Your task to perform on an android device: Open Yahoo.com Image 0: 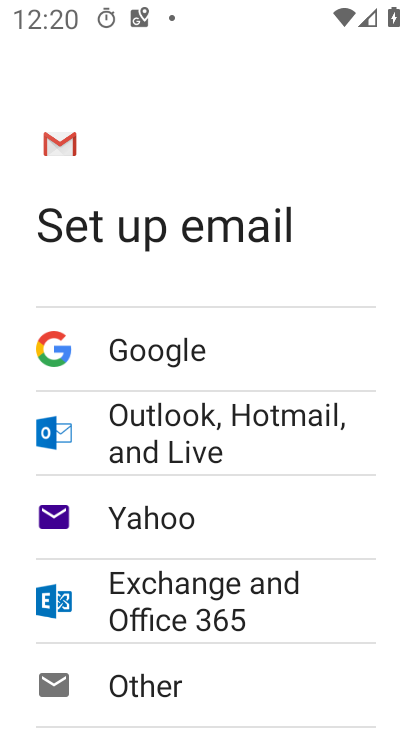
Step 0: press home button
Your task to perform on an android device: Open Yahoo.com Image 1: 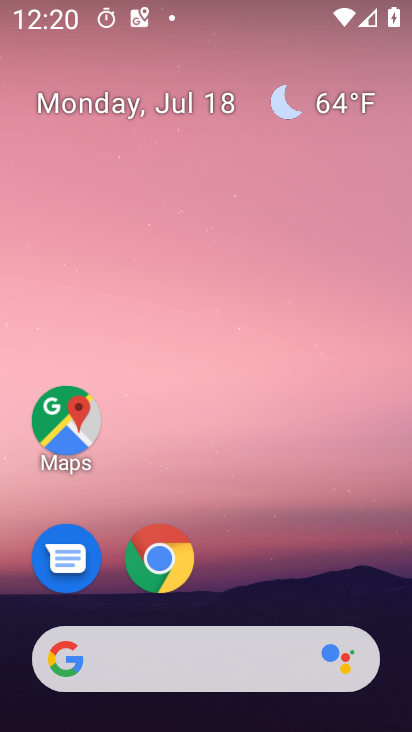
Step 1: drag from (320, 542) to (378, 121)
Your task to perform on an android device: Open Yahoo.com Image 2: 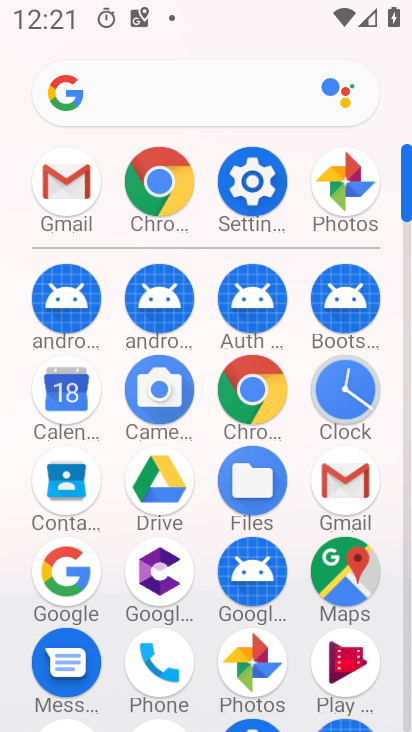
Step 2: click (266, 383)
Your task to perform on an android device: Open Yahoo.com Image 3: 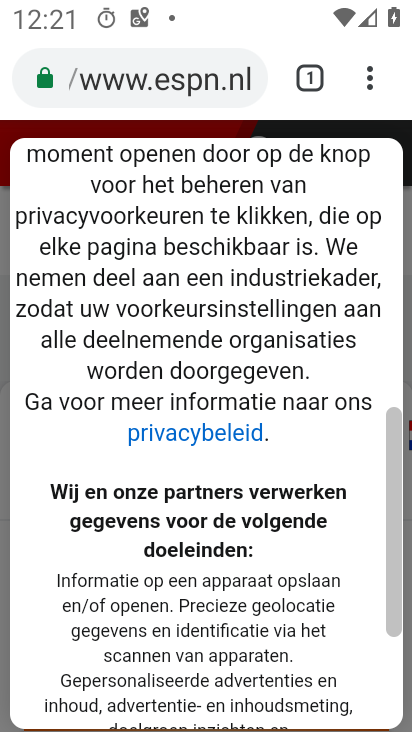
Step 3: click (198, 92)
Your task to perform on an android device: Open Yahoo.com Image 4: 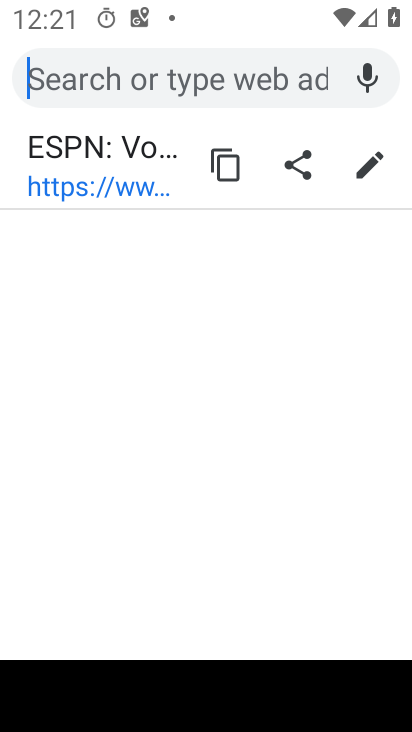
Step 4: type "yahoo.com"
Your task to perform on an android device: Open Yahoo.com Image 5: 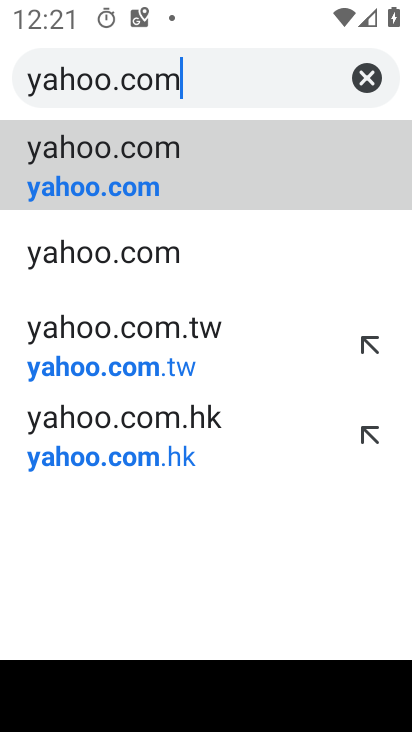
Step 5: click (265, 153)
Your task to perform on an android device: Open Yahoo.com Image 6: 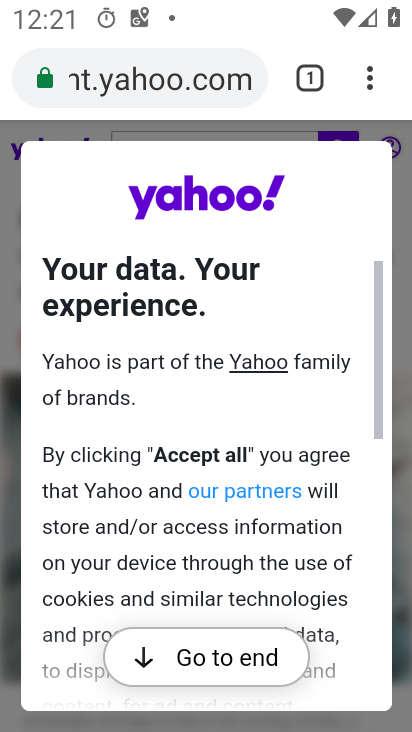
Step 6: task complete